Your task to perform on an android device: Go to Android settings Image 0: 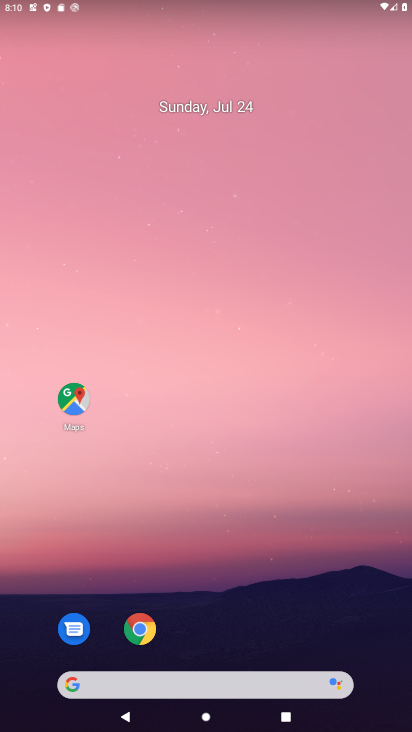
Step 0: drag from (256, 678) to (280, 97)
Your task to perform on an android device: Go to Android settings Image 1: 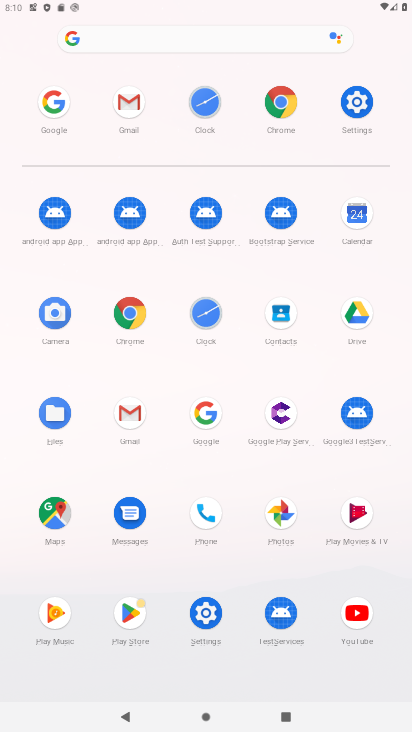
Step 1: click (358, 120)
Your task to perform on an android device: Go to Android settings Image 2: 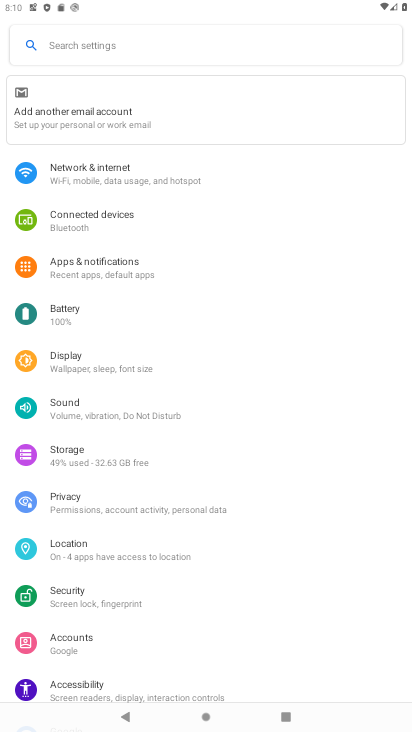
Step 2: drag from (125, 614) to (145, 150)
Your task to perform on an android device: Go to Android settings Image 3: 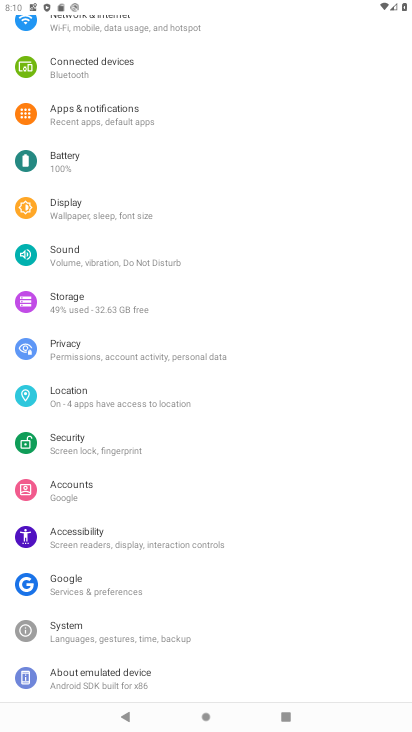
Step 3: click (117, 685)
Your task to perform on an android device: Go to Android settings Image 4: 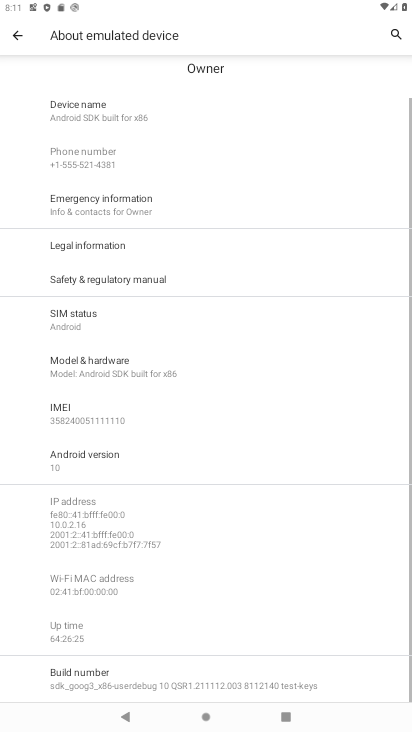
Step 4: click (118, 455)
Your task to perform on an android device: Go to Android settings Image 5: 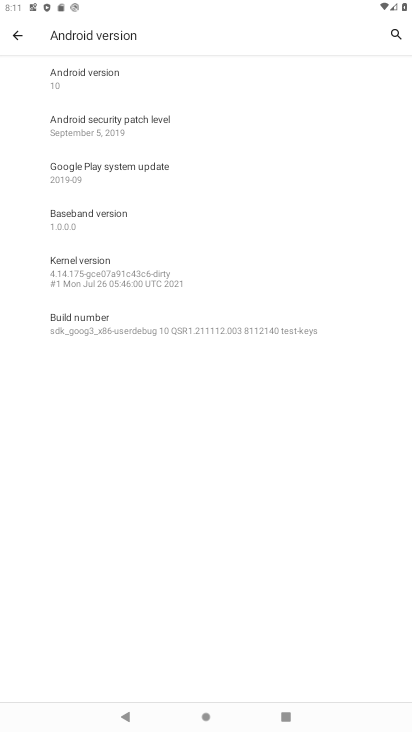
Step 5: task complete